Your task to perform on an android device: check storage Image 0: 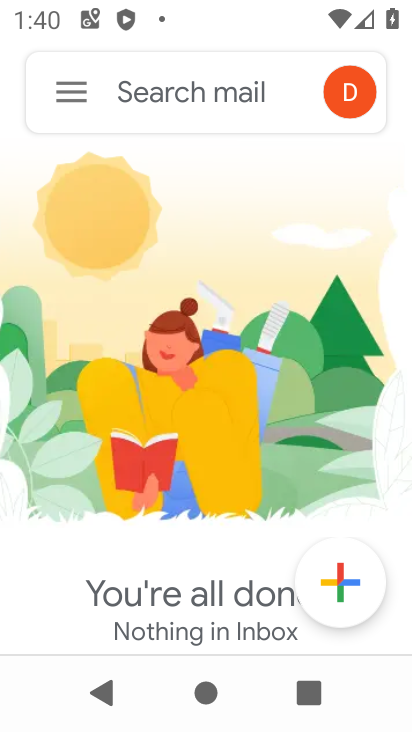
Step 0: press home button
Your task to perform on an android device: check storage Image 1: 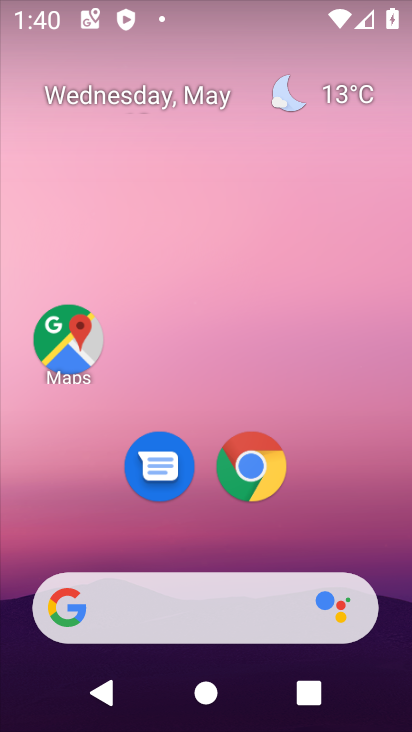
Step 1: drag from (340, 476) to (346, 107)
Your task to perform on an android device: check storage Image 2: 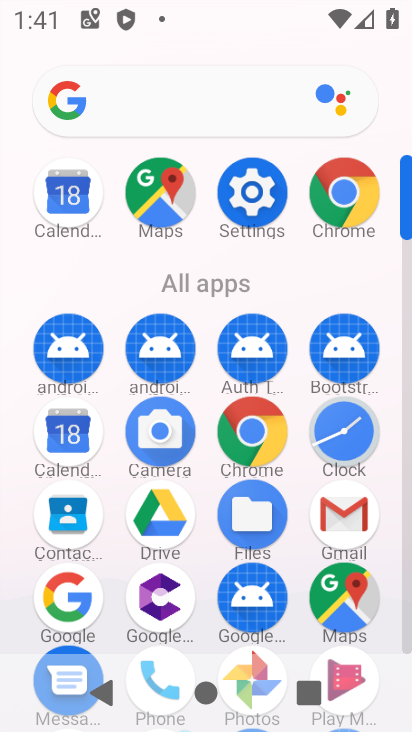
Step 2: click (238, 216)
Your task to perform on an android device: check storage Image 3: 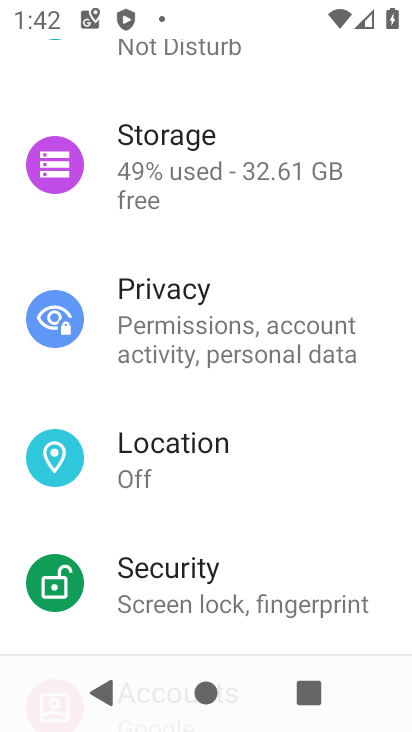
Step 3: click (198, 141)
Your task to perform on an android device: check storage Image 4: 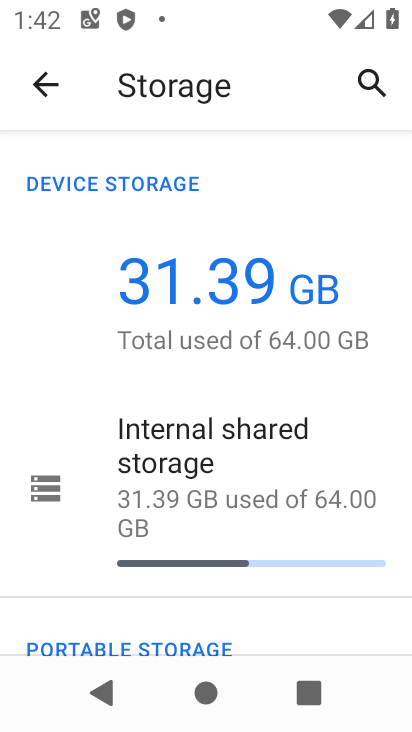
Step 4: task complete